Your task to perform on an android device: Clear the shopping cart on bestbuy. Add "asus zenbook" to the cart on bestbuy Image 0: 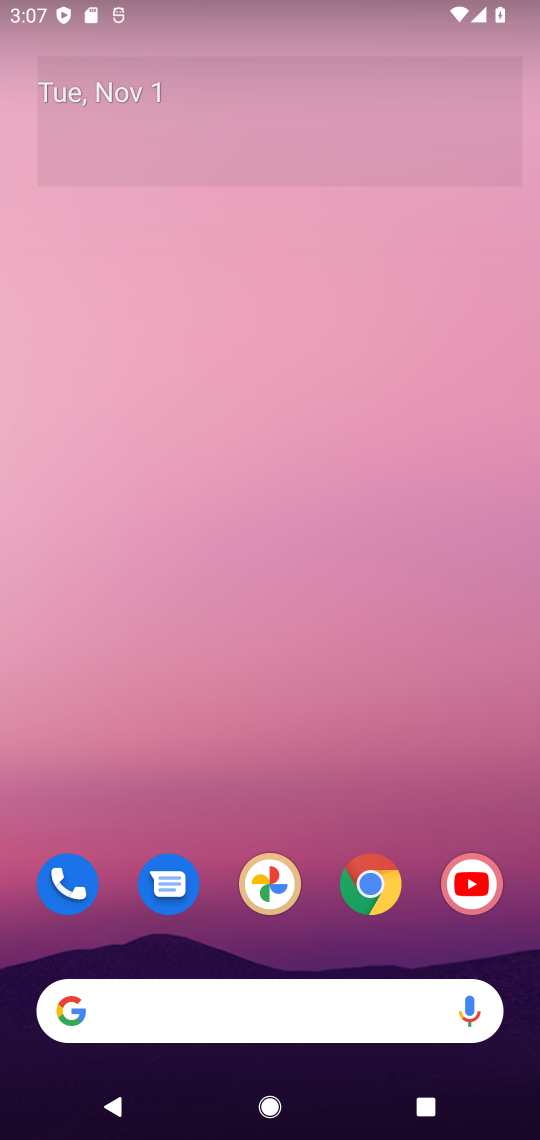
Step 0: click (367, 888)
Your task to perform on an android device: Clear the shopping cart on bestbuy. Add "asus zenbook" to the cart on bestbuy Image 1: 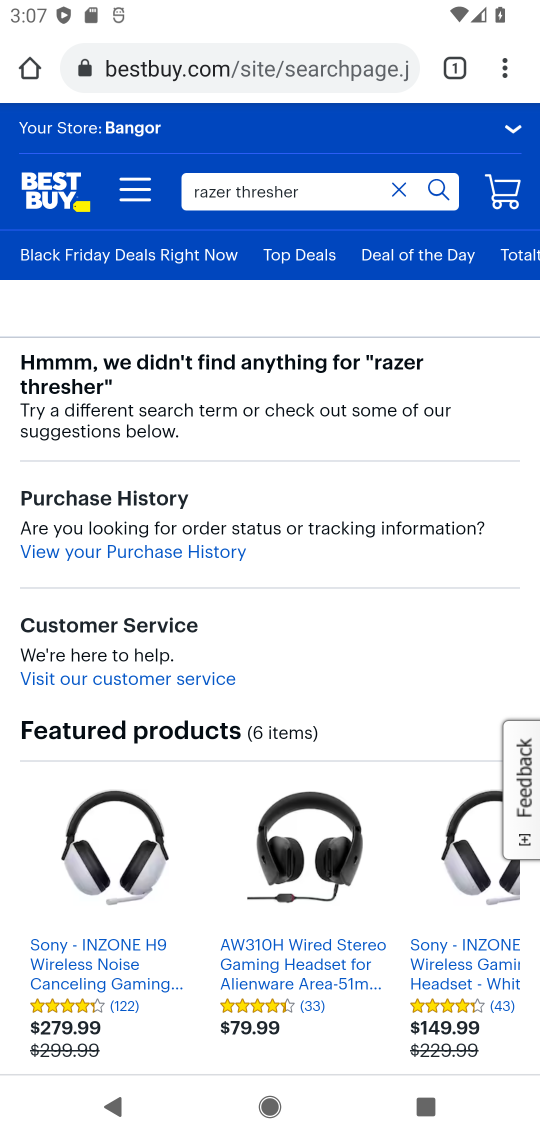
Step 1: click (510, 193)
Your task to perform on an android device: Clear the shopping cart on bestbuy. Add "asus zenbook" to the cart on bestbuy Image 2: 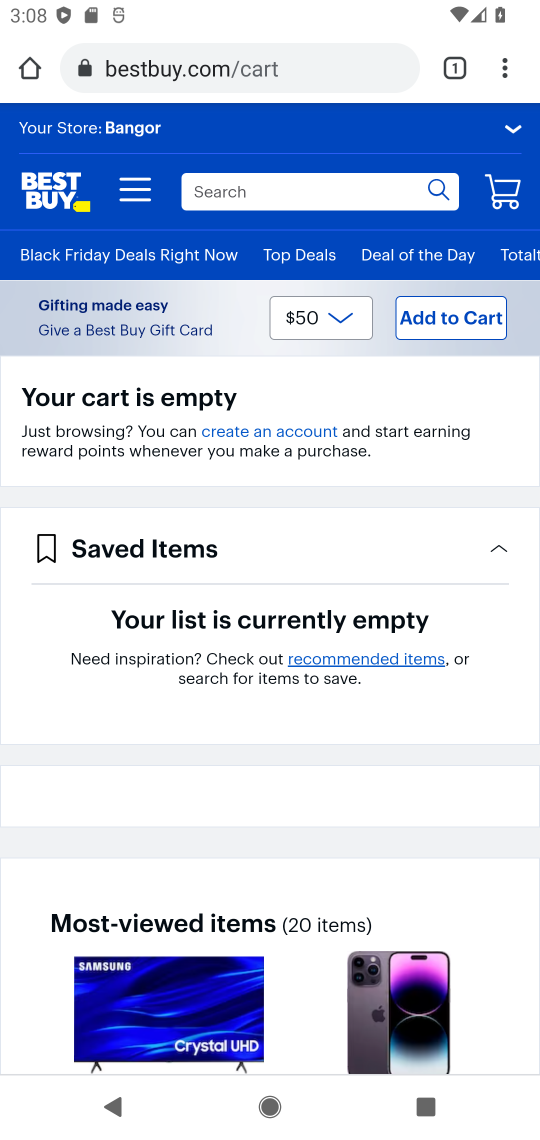
Step 2: click (316, 194)
Your task to perform on an android device: Clear the shopping cart on bestbuy. Add "asus zenbook" to the cart on bestbuy Image 3: 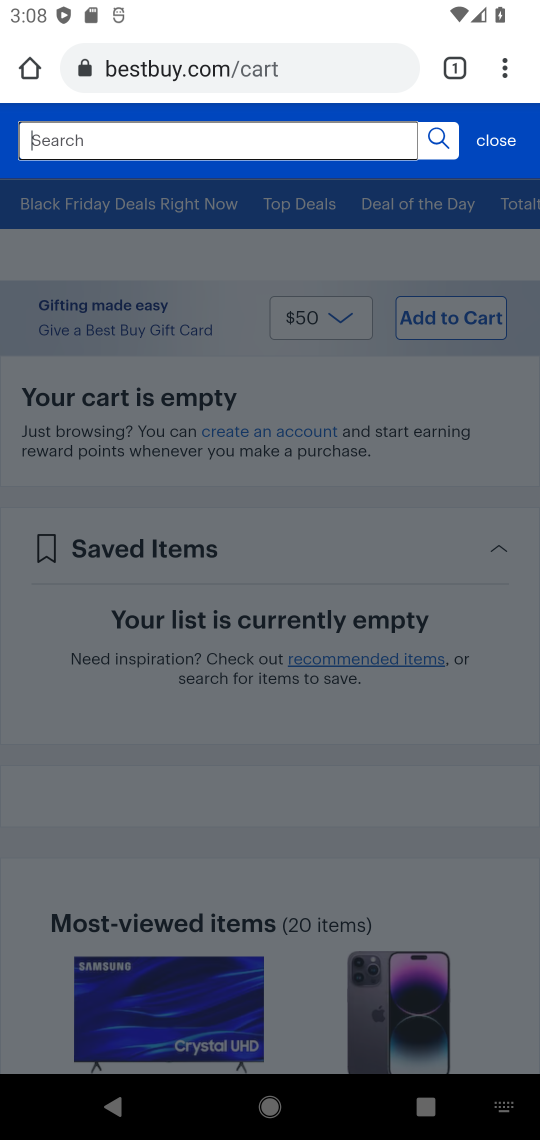
Step 3: press enter
Your task to perform on an android device: Clear the shopping cart on bestbuy. Add "asus zenbook" to the cart on bestbuy Image 4: 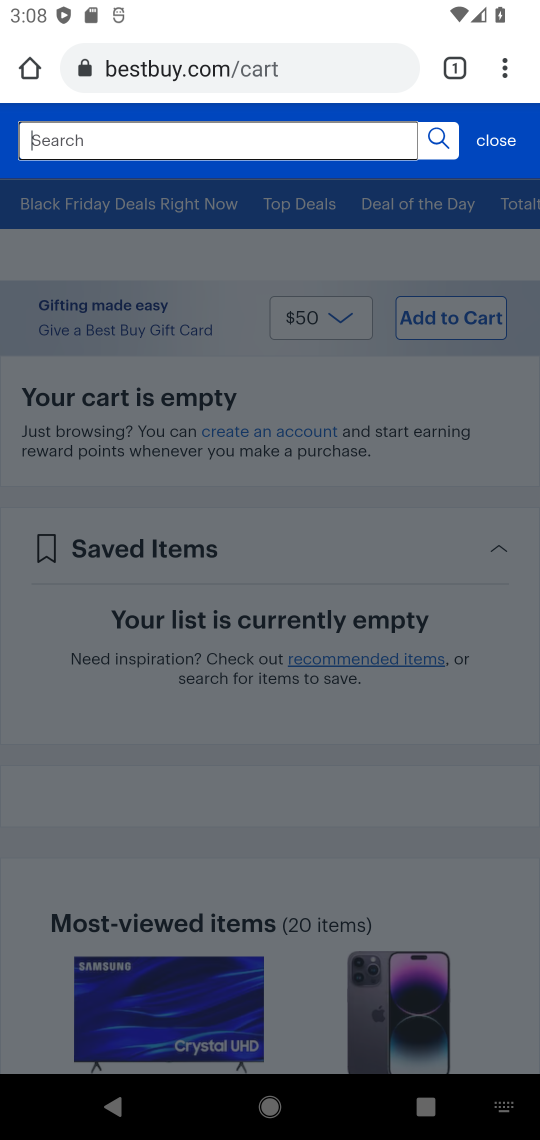
Step 4: type "asus zenbook"
Your task to perform on an android device: Clear the shopping cart on bestbuy. Add "asus zenbook" to the cart on bestbuy Image 5: 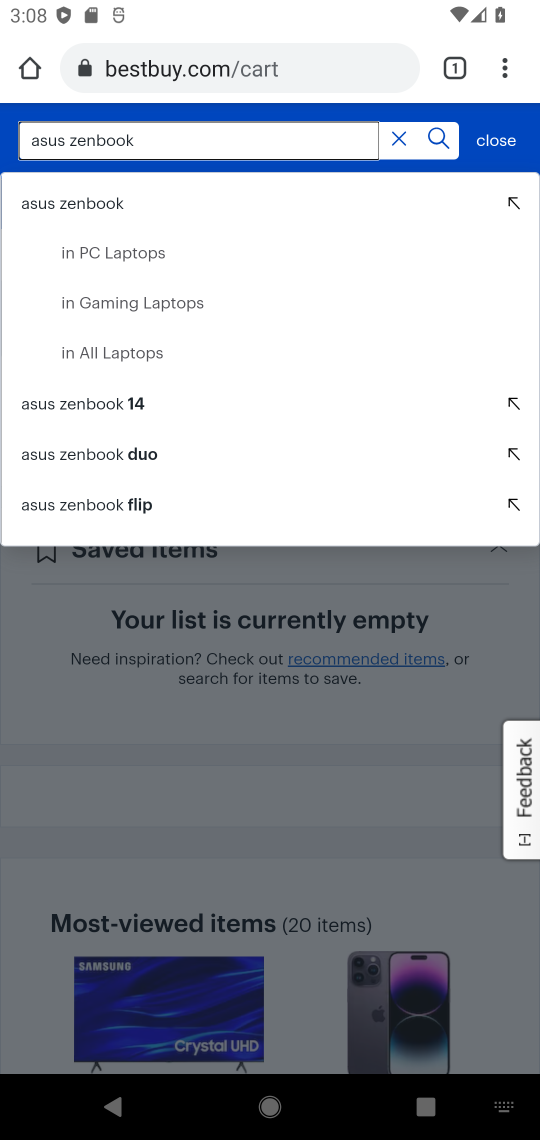
Step 5: click (298, 142)
Your task to perform on an android device: Clear the shopping cart on bestbuy. Add "asus zenbook" to the cart on bestbuy Image 6: 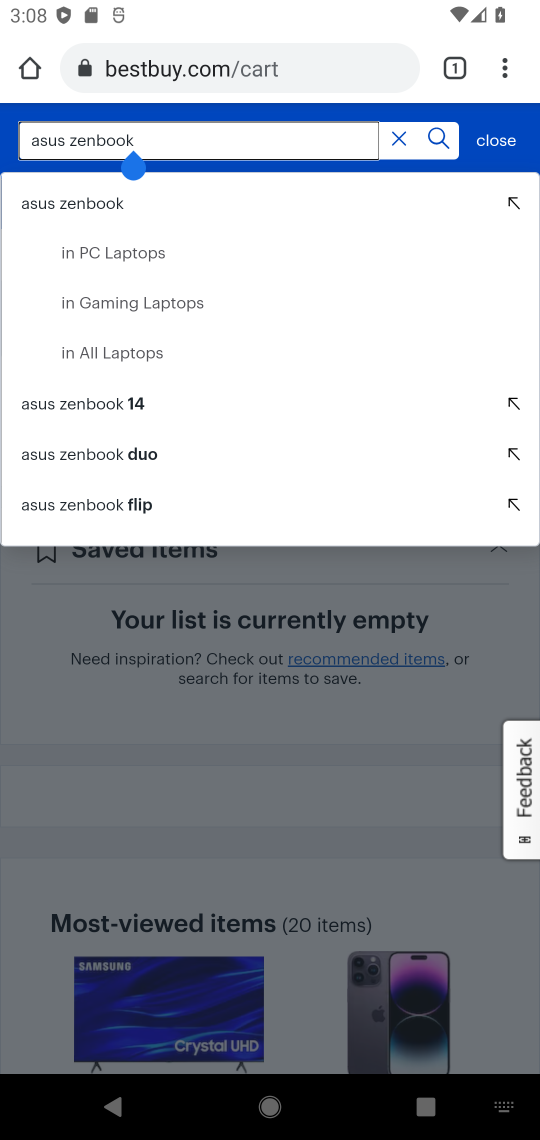
Step 6: click (106, 201)
Your task to perform on an android device: Clear the shopping cart on bestbuy. Add "asus zenbook" to the cart on bestbuy Image 7: 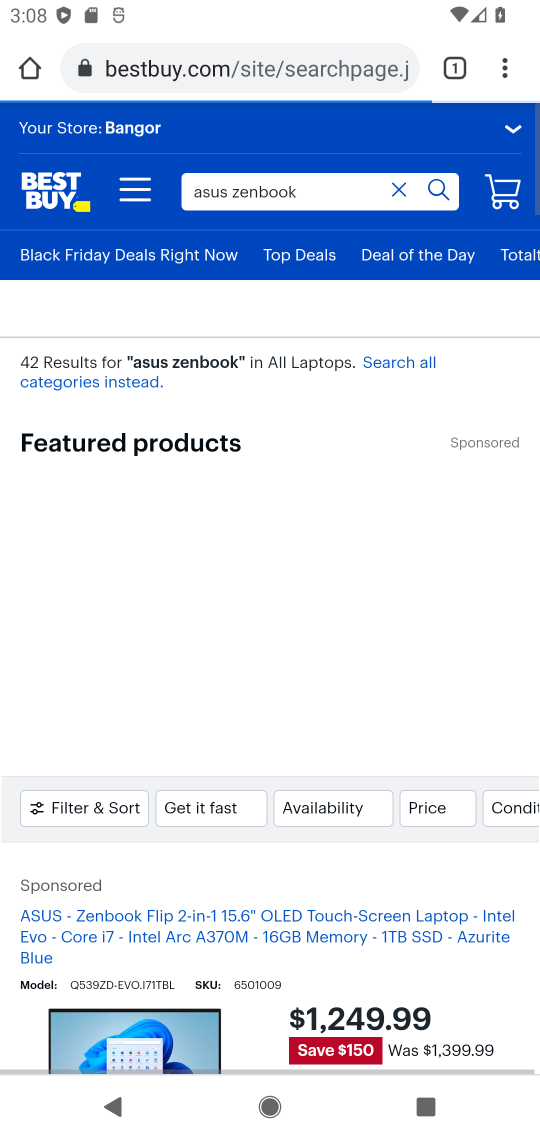
Step 7: drag from (346, 904) to (345, 559)
Your task to perform on an android device: Clear the shopping cart on bestbuy. Add "asus zenbook" to the cart on bestbuy Image 8: 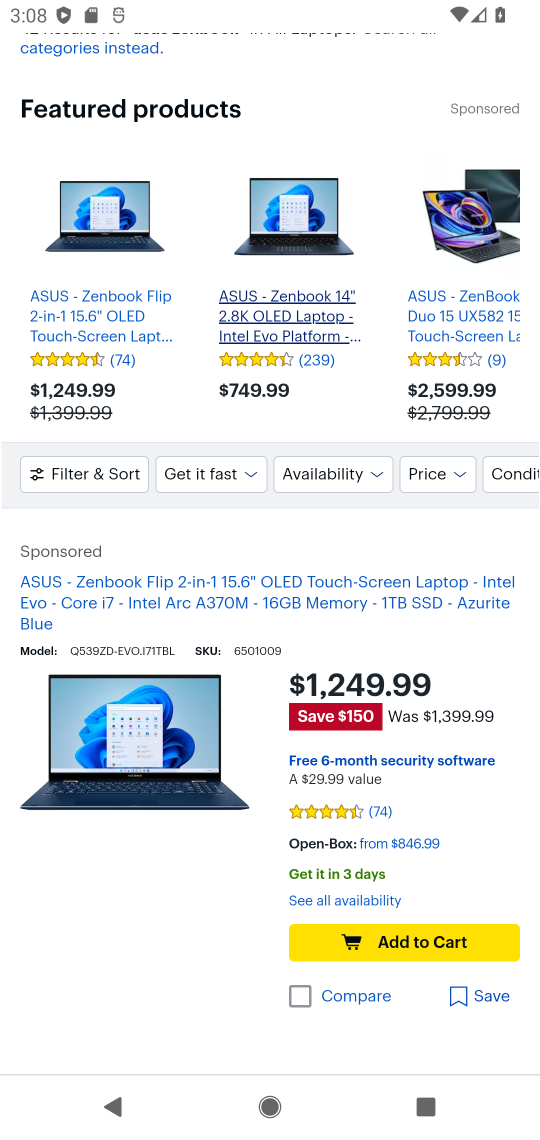
Step 8: click (437, 941)
Your task to perform on an android device: Clear the shopping cart on bestbuy. Add "asus zenbook" to the cart on bestbuy Image 9: 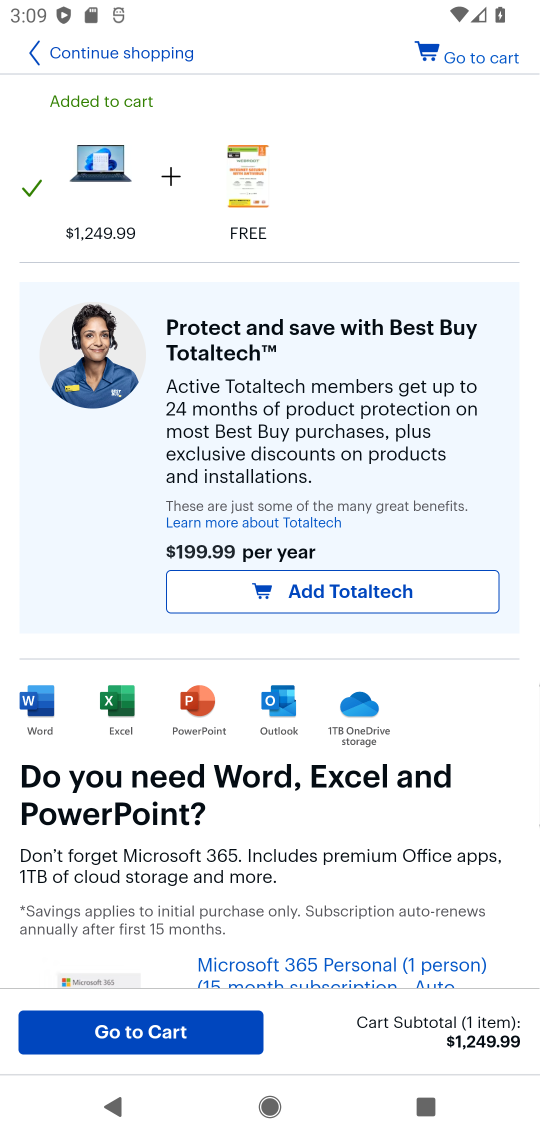
Step 9: task complete